Your task to perform on an android device: Open ESPN.com Image 0: 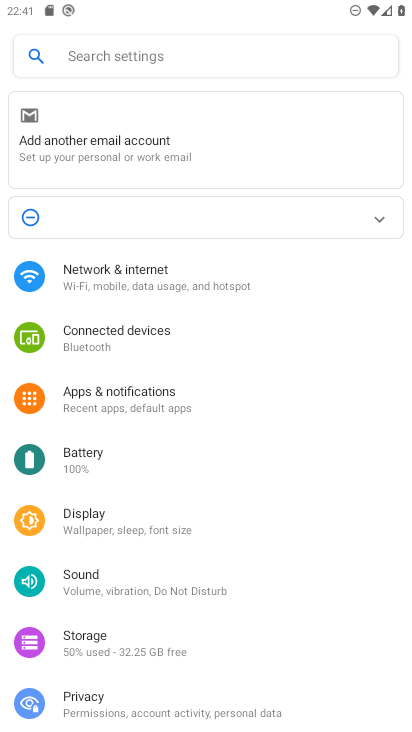
Step 0: press home button
Your task to perform on an android device: Open ESPN.com Image 1: 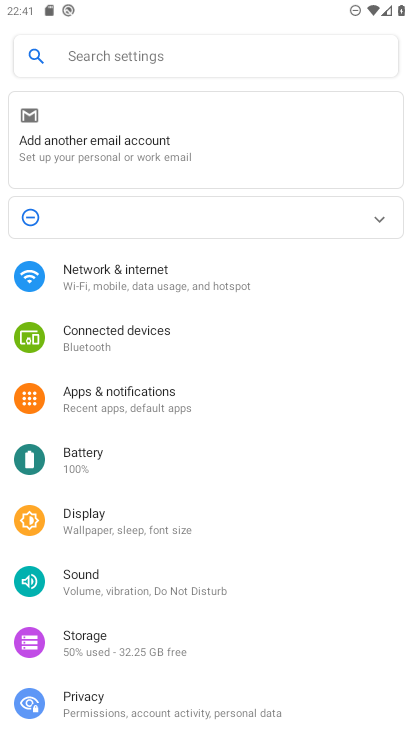
Step 1: click (399, 31)
Your task to perform on an android device: Open ESPN.com Image 2: 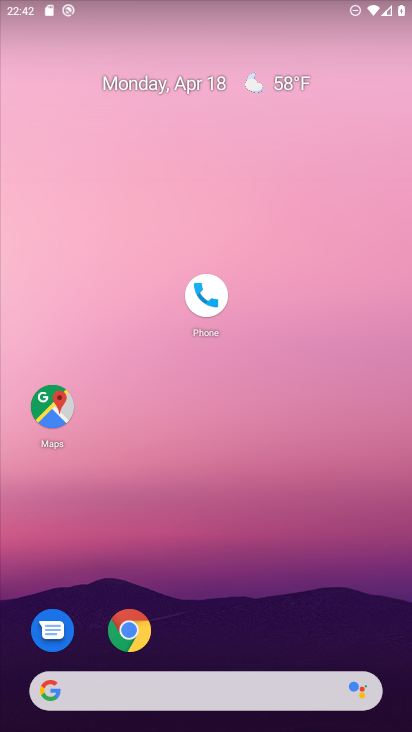
Step 2: click (126, 641)
Your task to perform on an android device: Open ESPN.com Image 3: 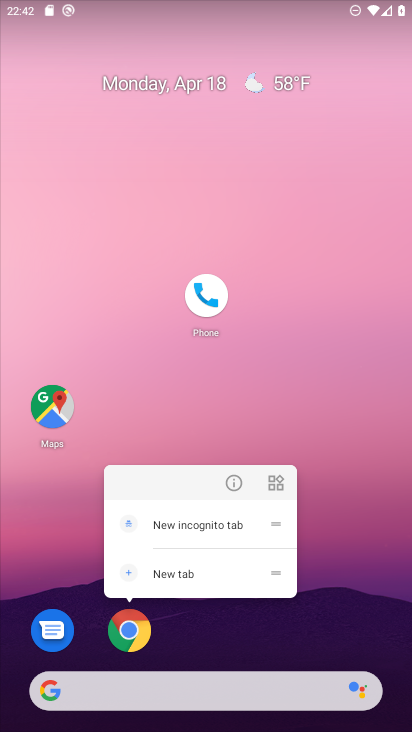
Step 3: drag from (359, 609) to (323, 208)
Your task to perform on an android device: Open ESPN.com Image 4: 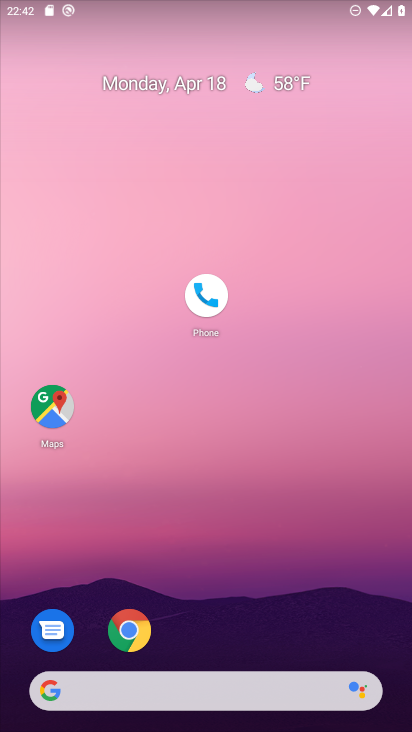
Step 4: drag from (312, 634) to (304, 61)
Your task to perform on an android device: Open ESPN.com Image 5: 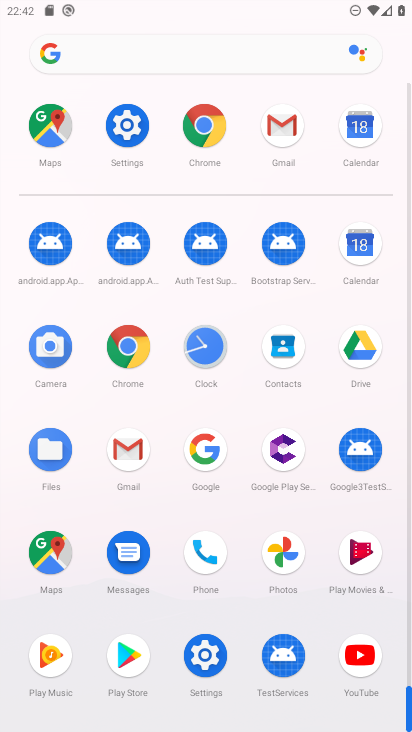
Step 5: click (203, 135)
Your task to perform on an android device: Open ESPN.com Image 6: 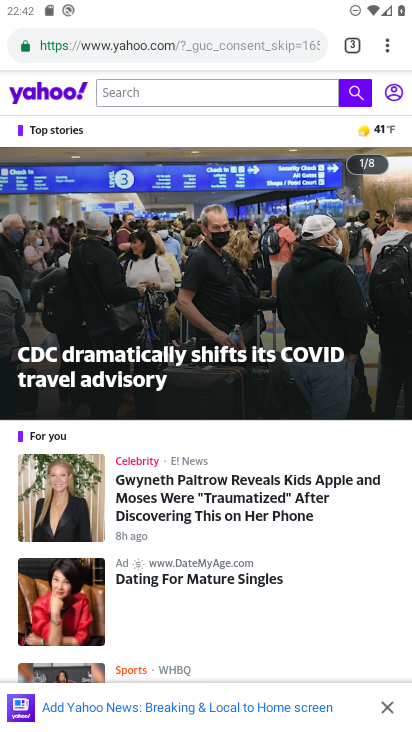
Step 6: click (224, 45)
Your task to perform on an android device: Open ESPN.com Image 7: 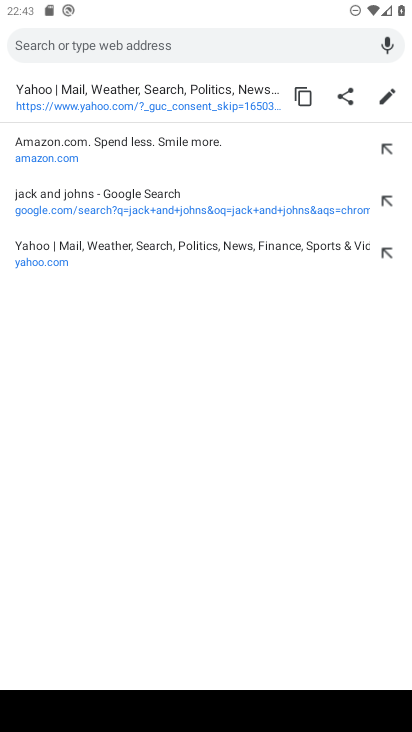
Step 7: type "espn.com"
Your task to perform on an android device: Open ESPN.com Image 8: 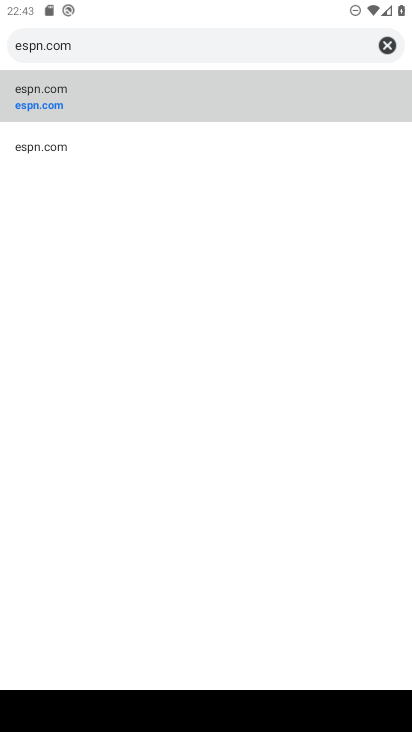
Step 8: click (43, 91)
Your task to perform on an android device: Open ESPN.com Image 9: 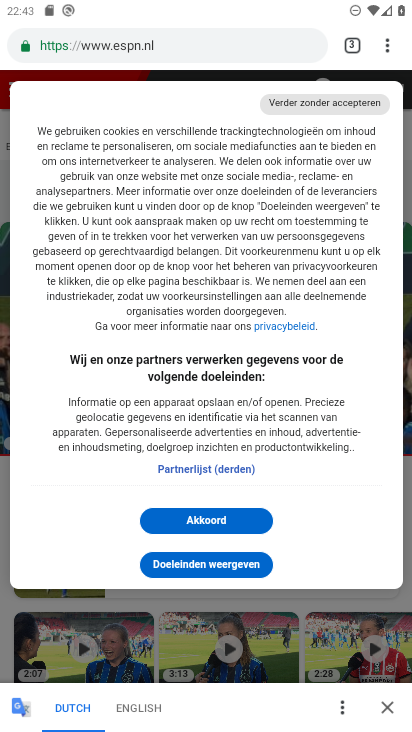
Step 9: task complete